Your task to perform on an android device: Go to Reddit.com Image 0: 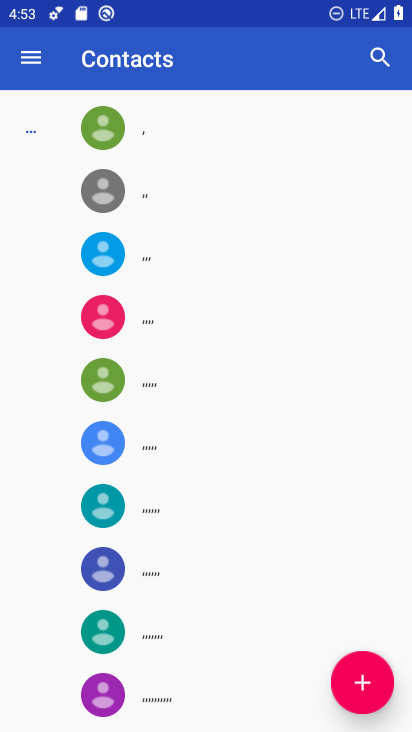
Step 0: press home button
Your task to perform on an android device: Go to Reddit.com Image 1: 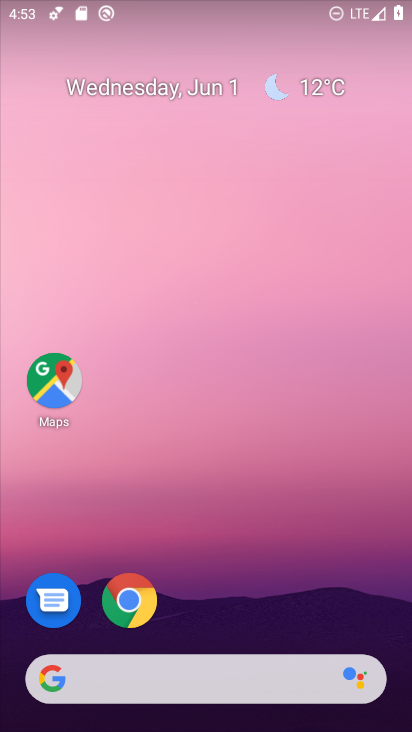
Step 1: click (132, 604)
Your task to perform on an android device: Go to Reddit.com Image 2: 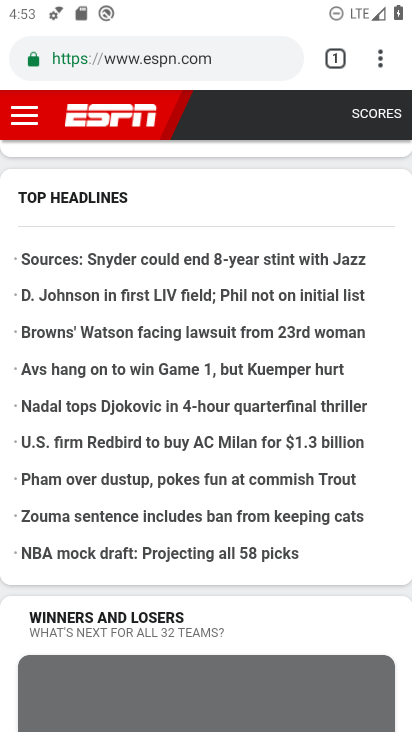
Step 2: click (249, 65)
Your task to perform on an android device: Go to Reddit.com Image 3: 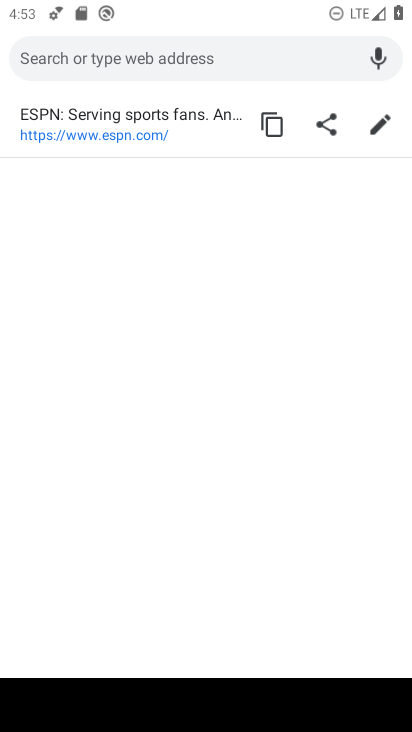
Step 3: type "reddit.com"
Your task to perform on an android device: Go to Reddit.com Image 4: 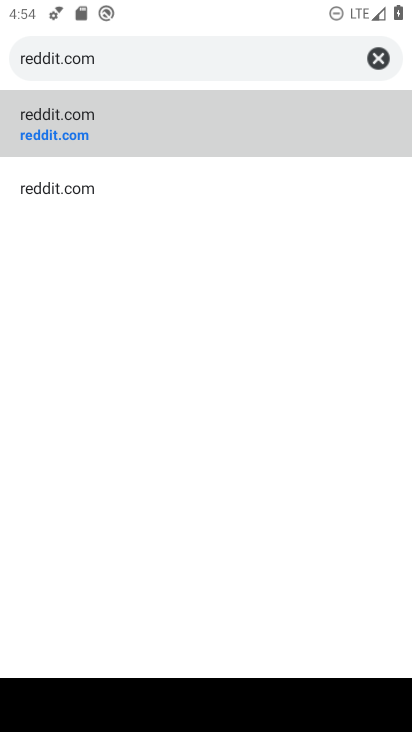
Step 4: click (66, 120)
Your task to perform on an android device: Go to Reddit.com Image 5: 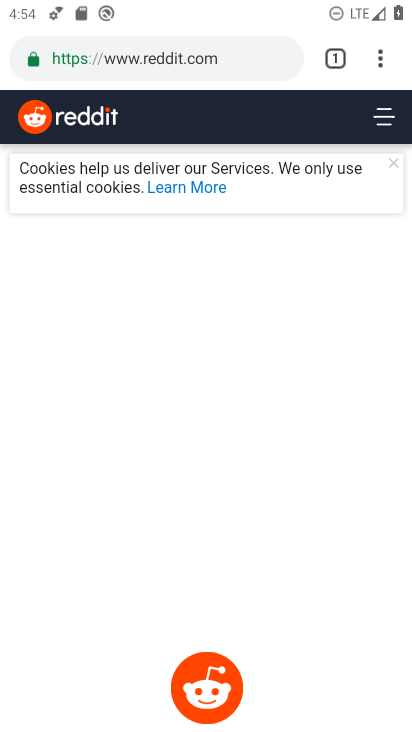
Step 5: task complete